Your task to perform on an android device: set default search engine in the chrome app Image 0: 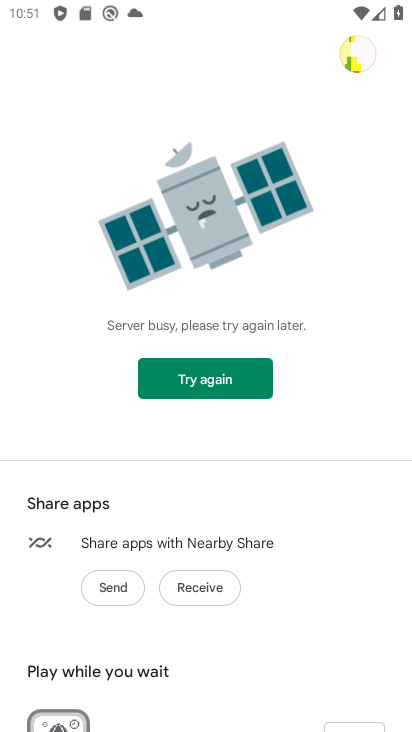
Step 0: task impossible